Your task to perform on an android device: Clear all items from cart on newegg.com. Search for "usb-a to usb-b" on newegg.com, select the first entry, and add it to the cart. Image 0: 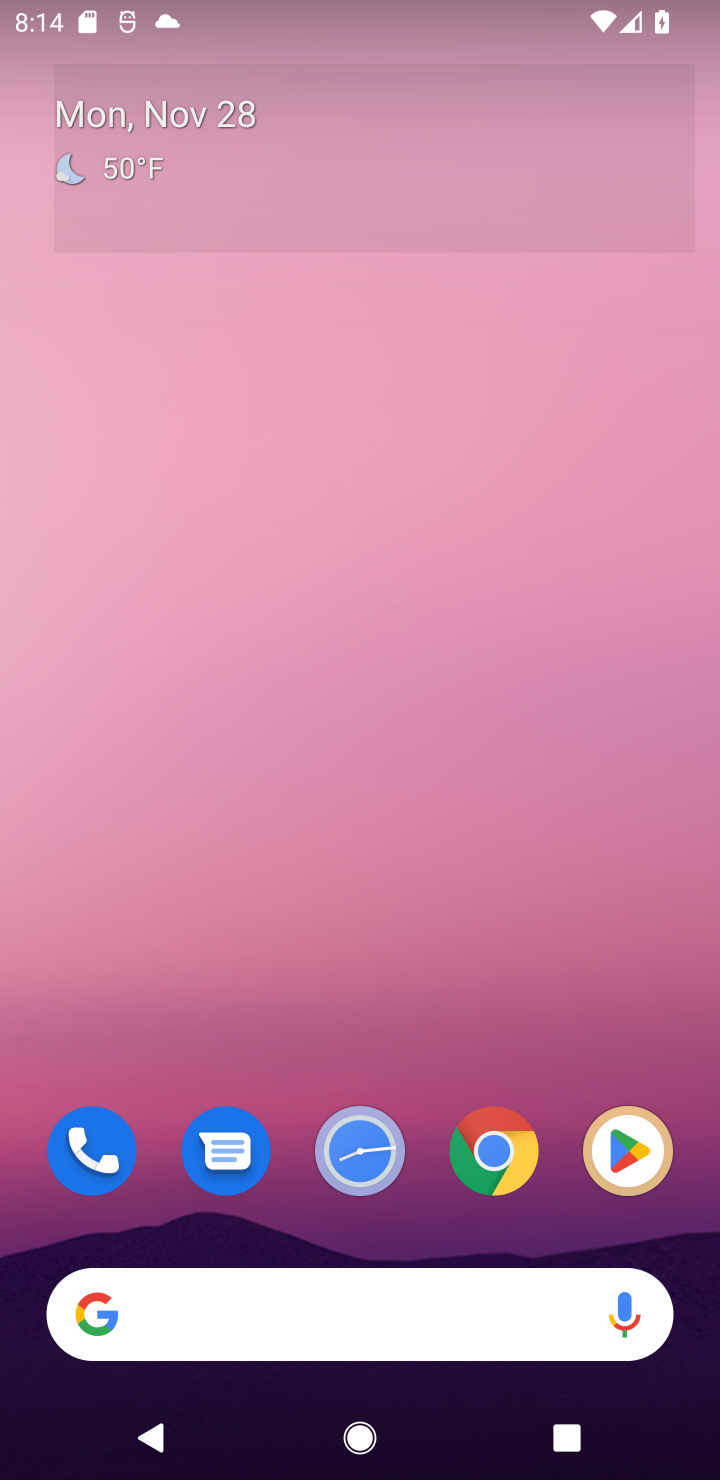
Step 0: click (308, 1298)
Your task to perform on an android device: Clear all items from cart on newegg.com. Search for "usb-a to usb-b" on newegg.com, select the first entry, and add it to the cart. Image 1: 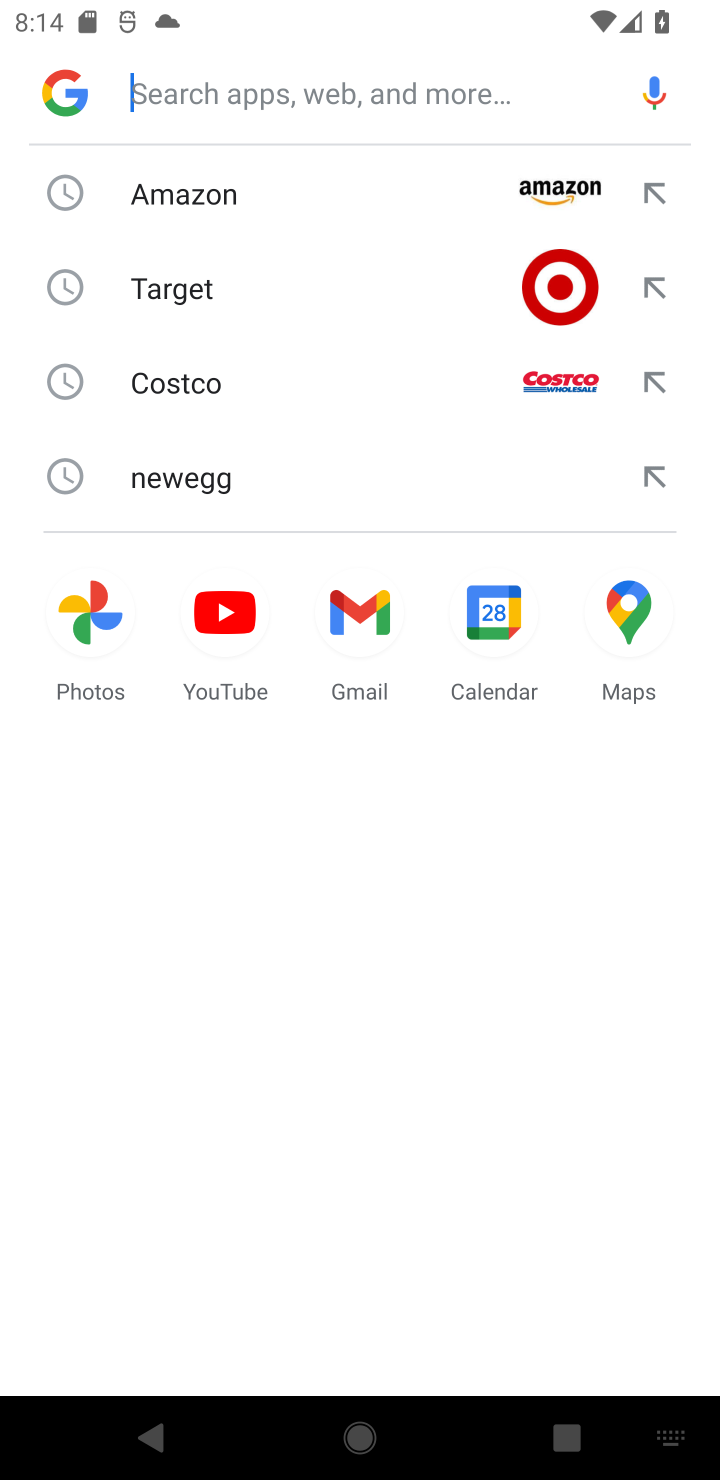
Step 1: type "usb-a to usb-b"
Your task to perform on an android device: Clear all items from cart on newegg.com. Search for "usb-a to usb-b" on newegg.com, select the first entry, and add it to the cart. Image 2: 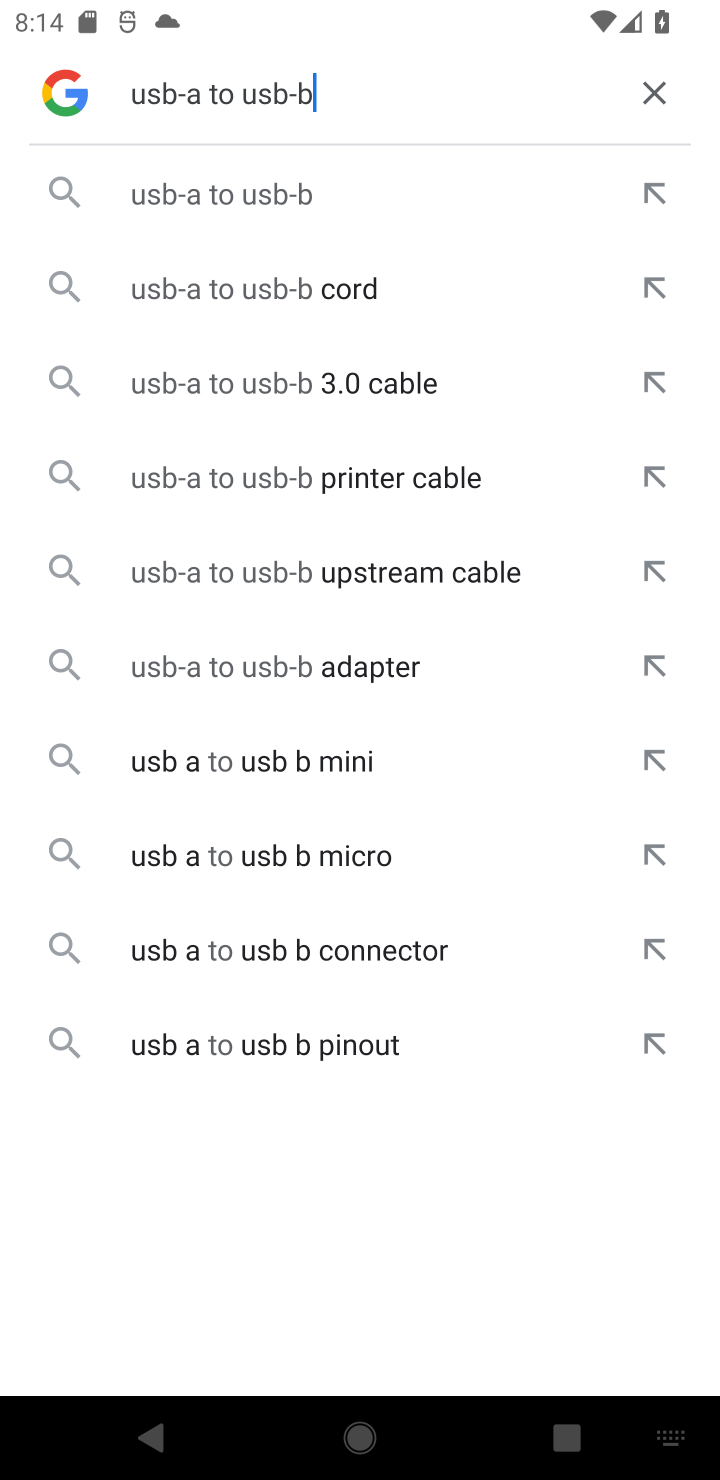
Step 2: click (268, 205)
Your task to perform on an android device: Clear all items from cart on newegg.com. Search for "usb-a to usb-b" on newegg.com, select the first entry, and add it to the cart. Image 3: 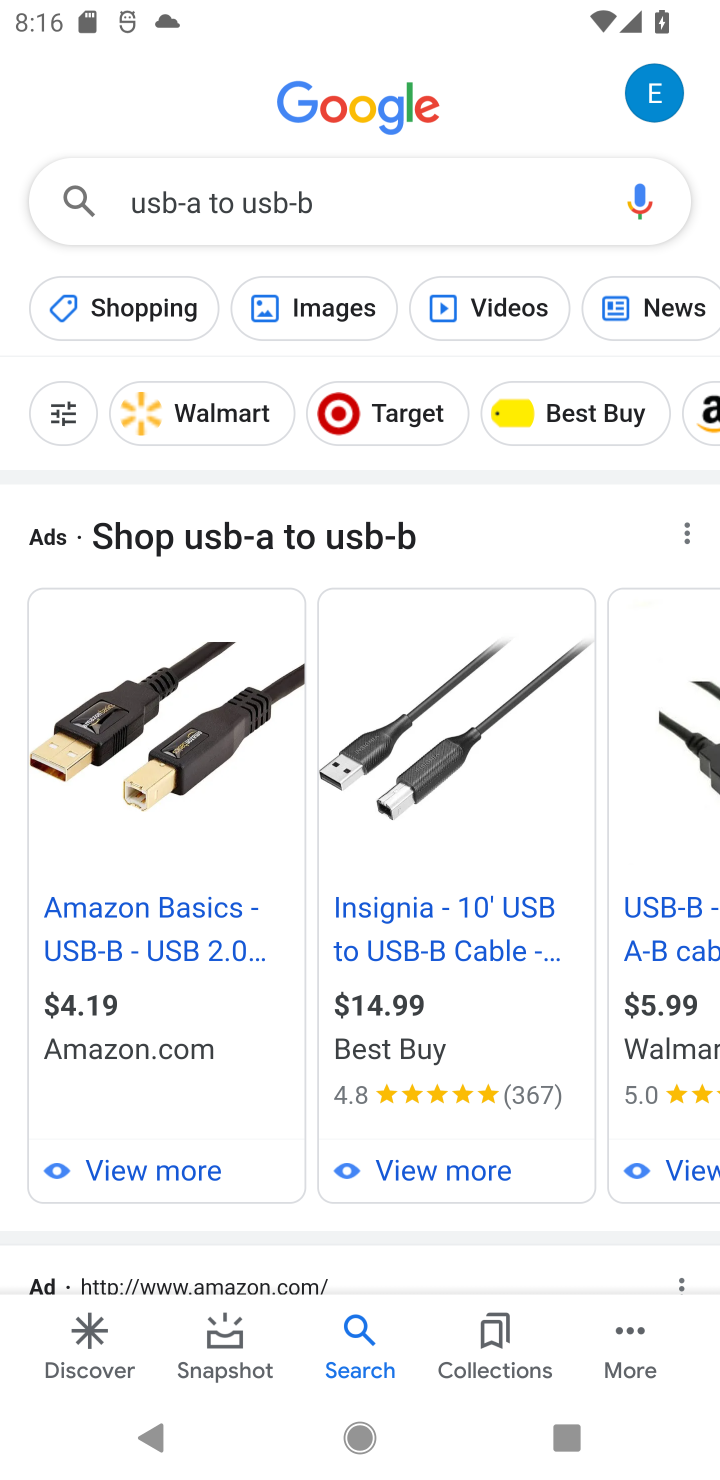
Step 3: task complete